Your task to perform on an android device: Search for Italian restaurants on Maps Image 0: 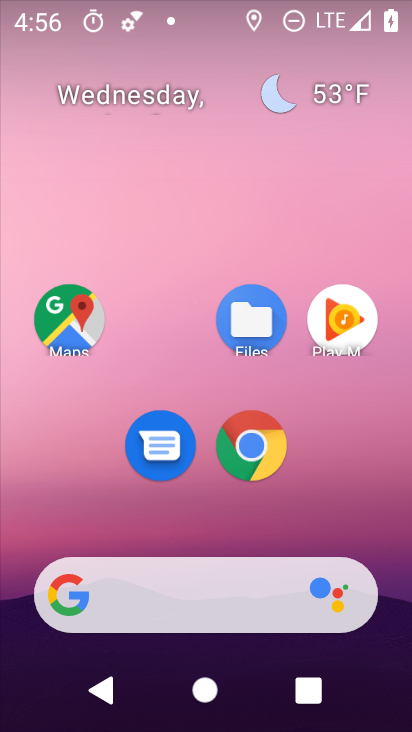
Step 0: click (61, 307)
Your task to perform on an android device: Search for Italian restaurants on Maps Image 1: 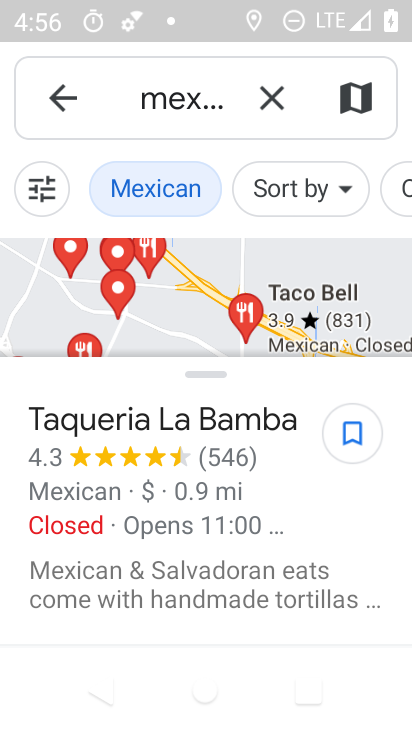
Step 1: click (271, 83)
Your task to perform on an android device: Search for Italian restaurants on Maps Image 2: 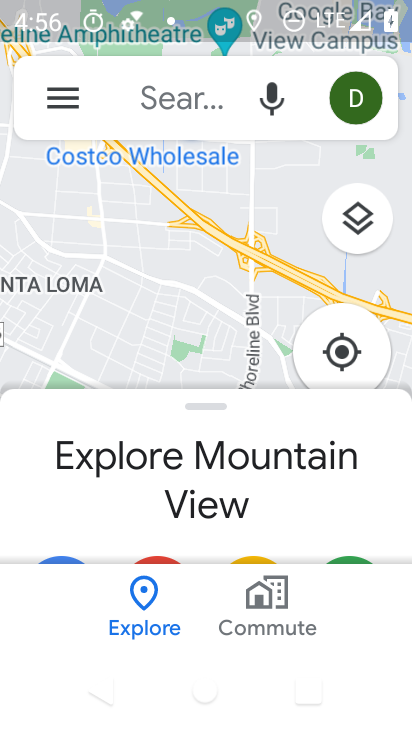
Step 2: click (193, 85)
Your task to perform on an android device: Search for Italian restaurants on Maps Image 3: 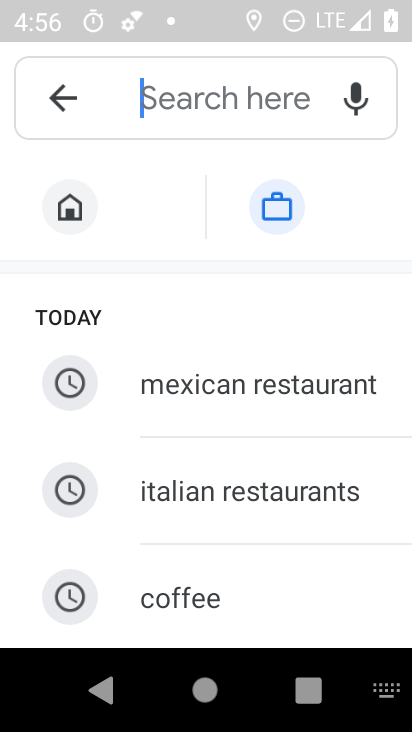
Step 3: click (182, 482)
Your task to perform on an android device: Search for Italian restaurants on Maps Image 4: 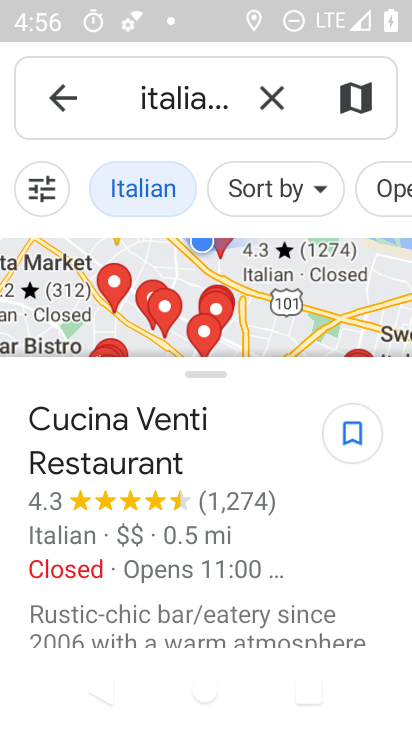
Step 4: task complete